Your task to perform on an android device: Open Google Maps and go to "Timeline" Image 0: 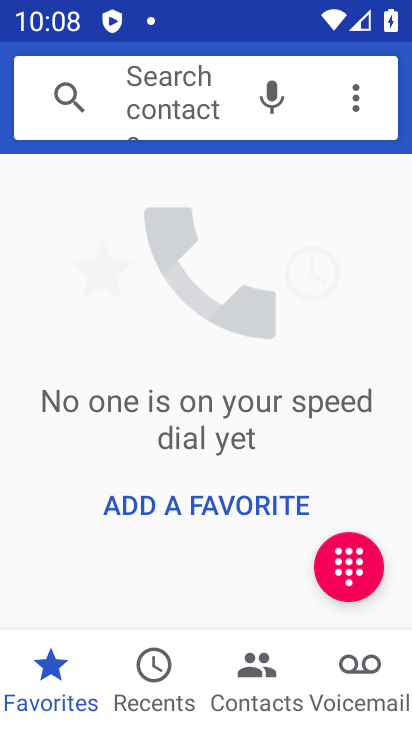
Step 0: press home button
Your task to perform on an android device: Open Google Maps and go to "Timeline" Image 1: 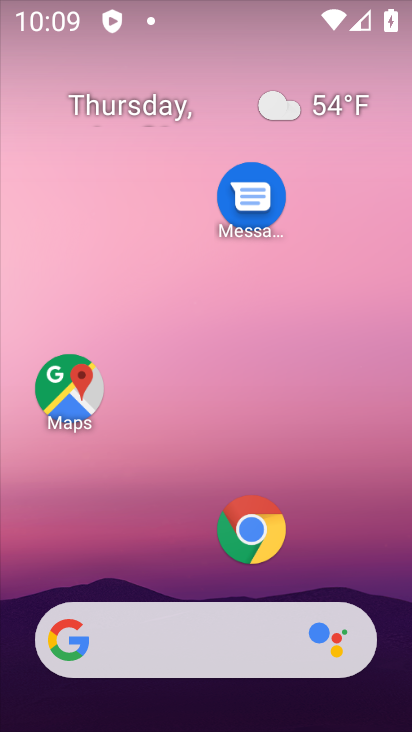
Step 1: click (73, 389)
Your task to perform on an android device: Open Google Maps and go to "Timeline" Image 2: 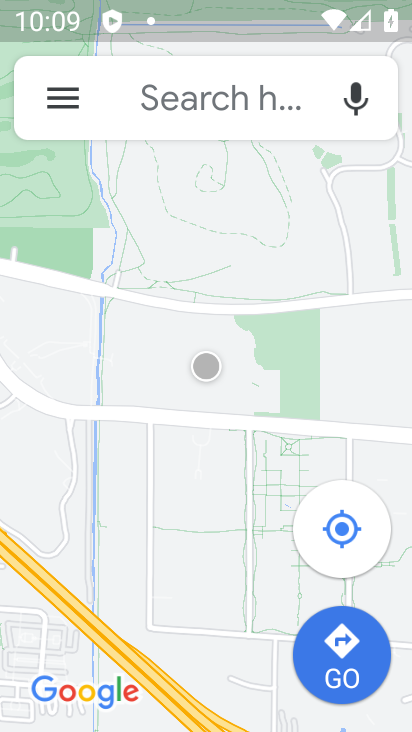
Step 2: click (66, 102)
Your task to perform on an android device: Open Google Maps and go to "Timeline" Image 3: 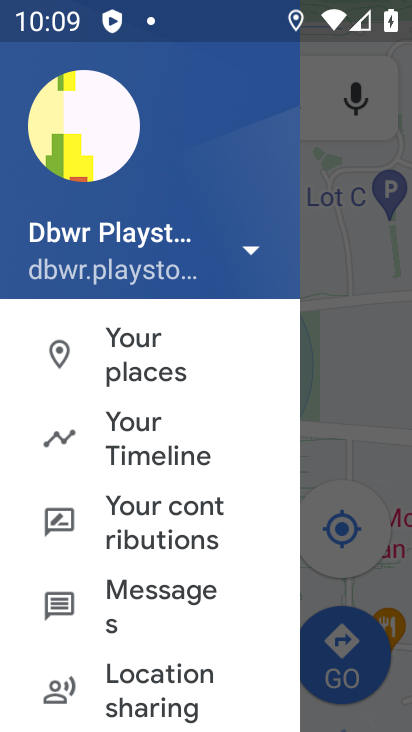
Step 3: click (158, 442)
Your task to perform on an android device: Open Google Maps and go to "Timeline" Image 4: 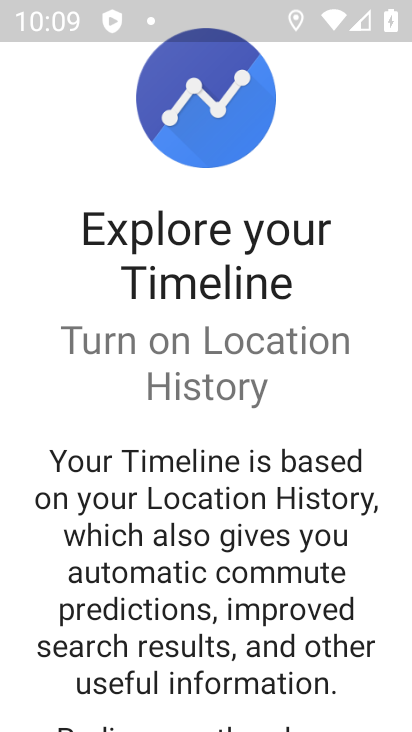
Step 4: drag from (189, 577) to (252, 320)
Your task to perform on an android device: Open Google Maps and go to "Timeline" Image 5: 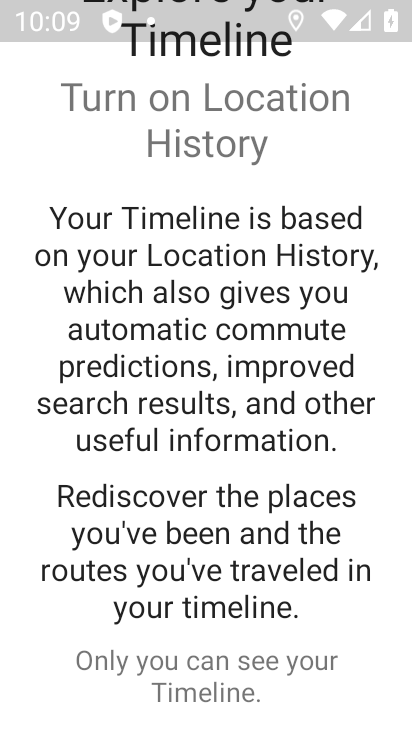
Step 5: drag from (256, 580) to (321, 342)
Your task to perform on an android device: Open Google Maps and go to "Timeline" Image 6: 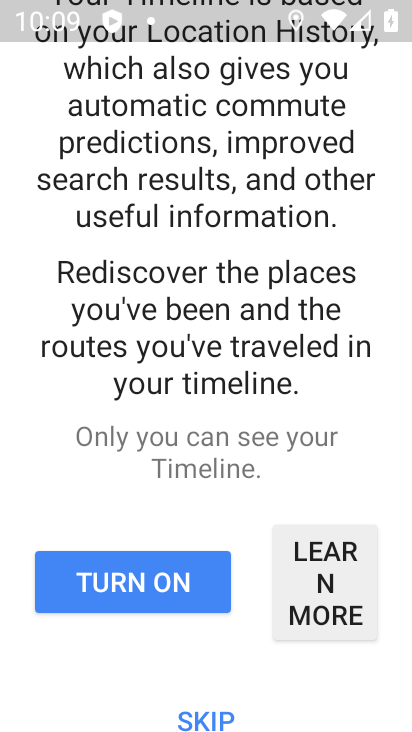
Step 6: click (202, 712)
Your task to perform on an android device: Open Google Maps and go to "Timeline" Image 7: 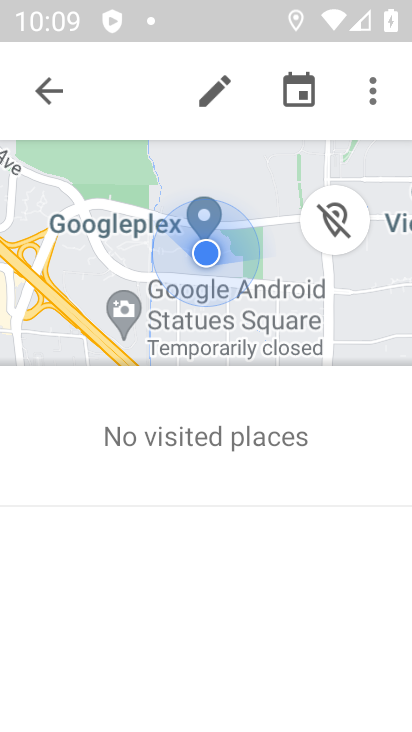
Step 7: task complete